Your task to perform on an android device: set the stopwatch Image 0: 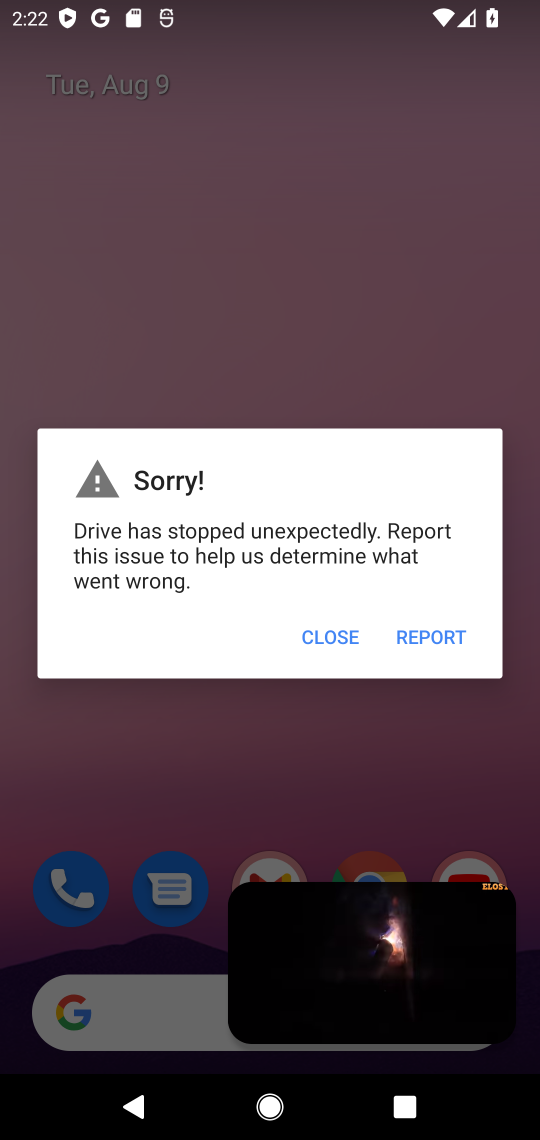
Step 0: click (444, 958)
Your task to perform on an android device: set the stopwatch Image 1: 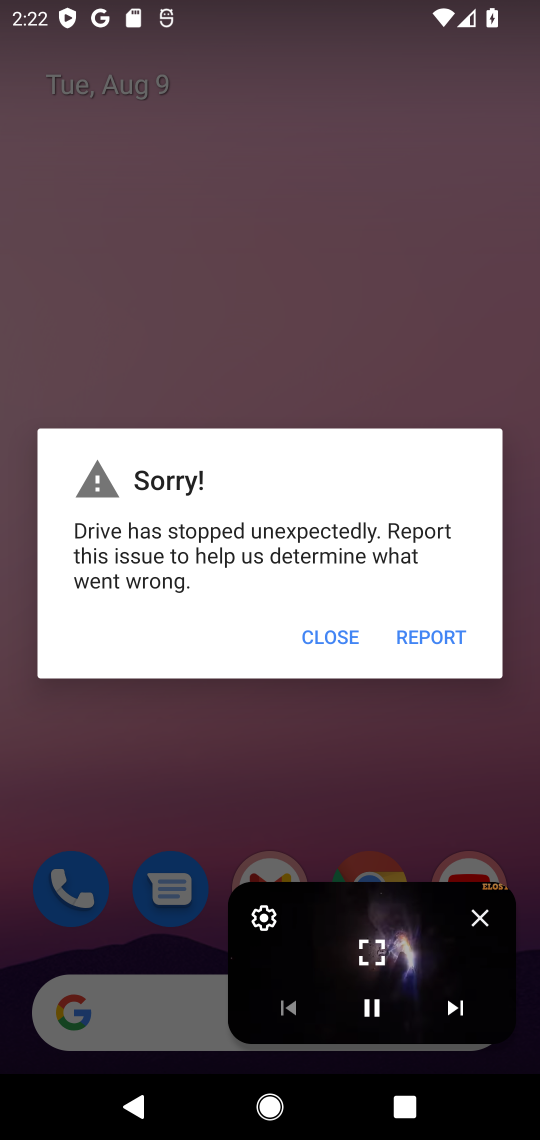
Step 1: click (481, 919)
Your task to perform on an android device: set the stopwatch Image 2: 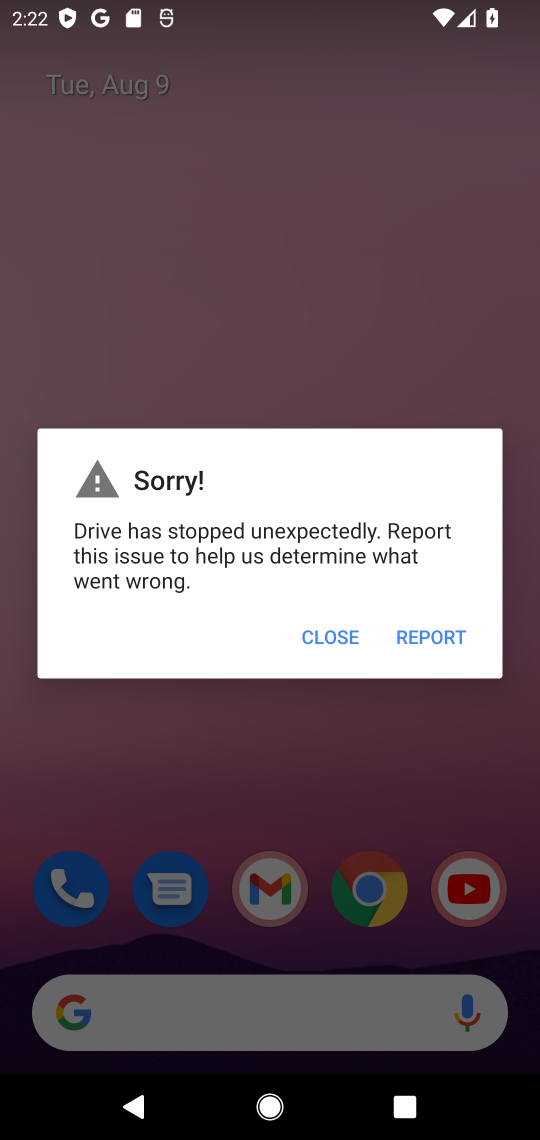
Step 2: click (334, 634)
Your task to perform on an android device: set the stopwatch Image 3: 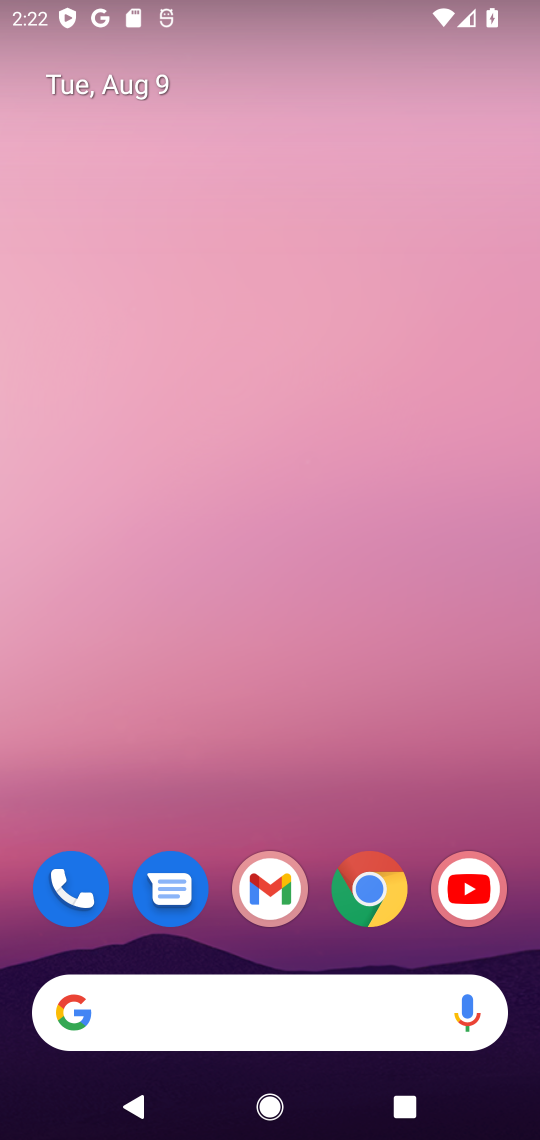
Step 3: drag from (294, 791) to (434, 34)
Your task to perform on an android device: set the stopwatch Image 4: 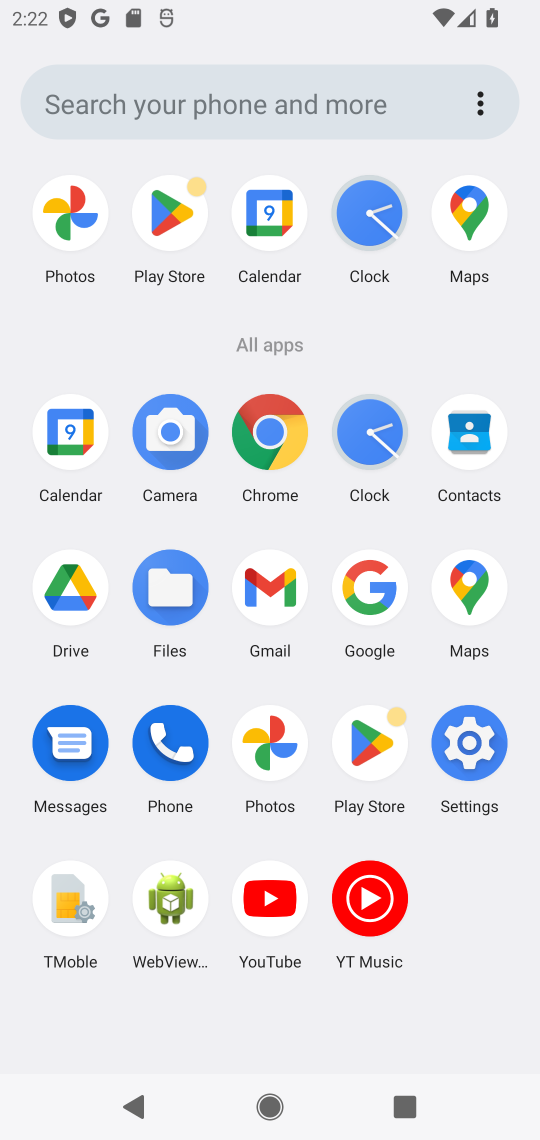
Step 4: click (371, 224)
Your task to perform on an android device: set the stopwatch Image 5: 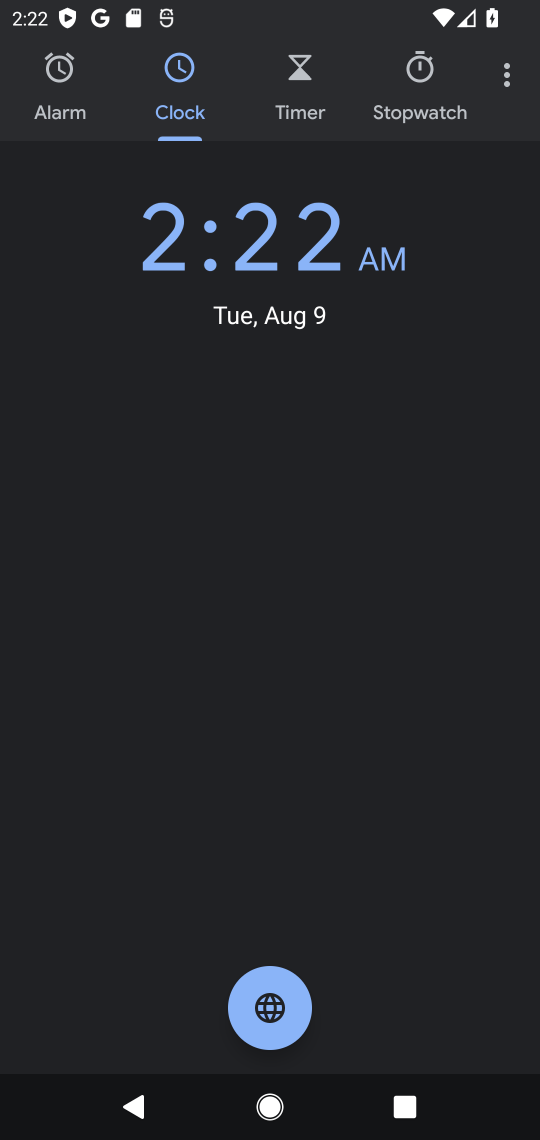
Step 5: click (420, 95)
Your task to perform on an android device: set the stopwatch Image 6: 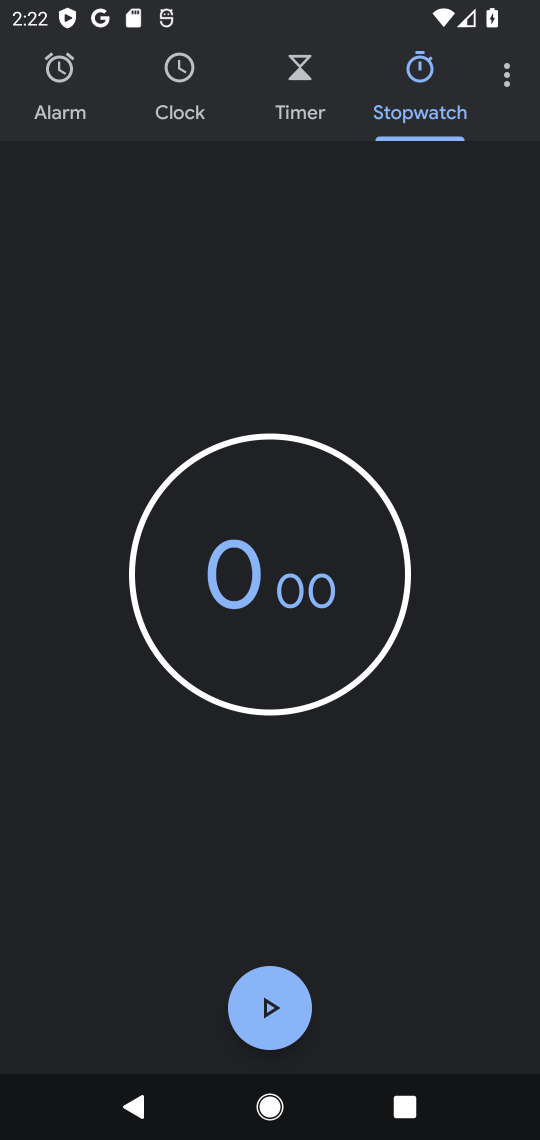
Step 6: task complete